Your task to perform on an android device: Open Google Chrome Image 0: 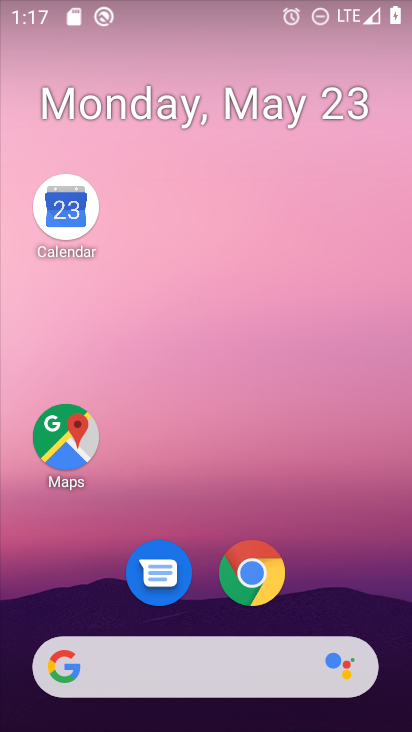
Step 0: click (249, 573)
Your task to perform on an android device: Open Google Chrome Image 1: 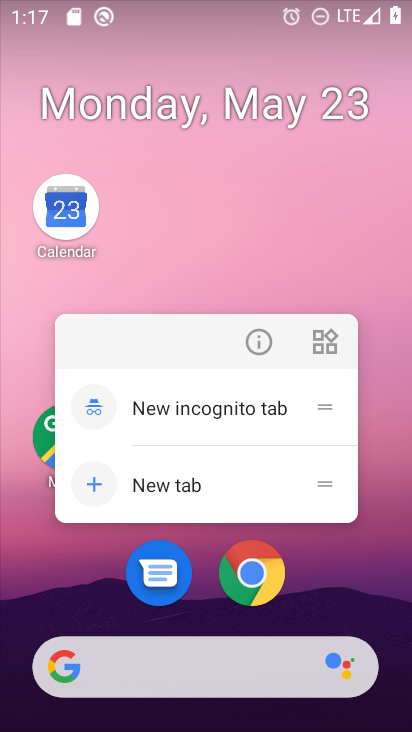
Step 1: click (251, 574)
Your task to perform on an android device: Open Google Chrome Image 2: 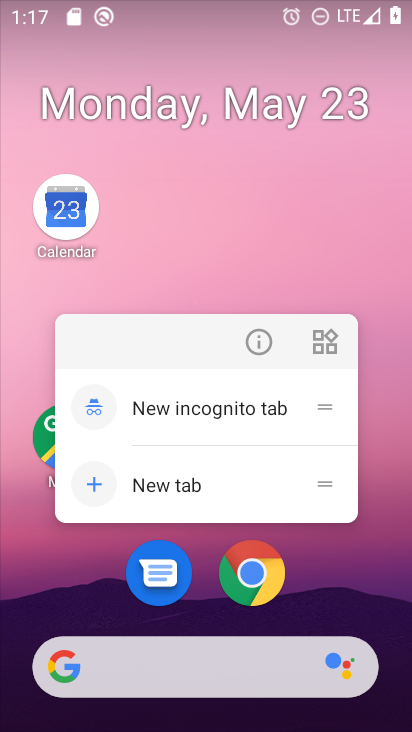
Step 2: click (251, 574)
Your task to perform on an android device: Open Google Chrome Image 3: 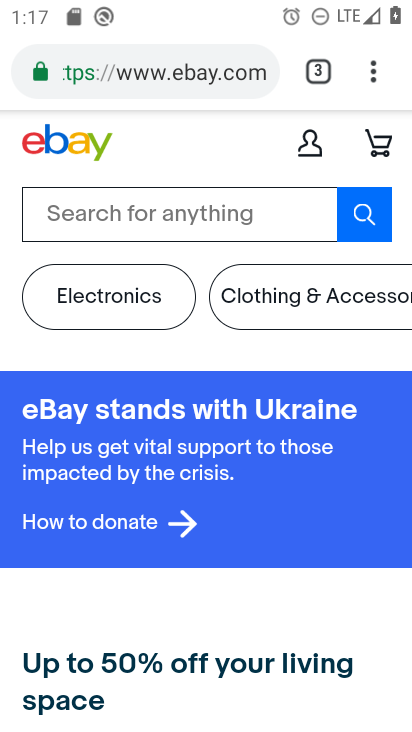
Step 3: click (371, 76)
Your task to perform on an android device: Open Google Chrome Image 4: 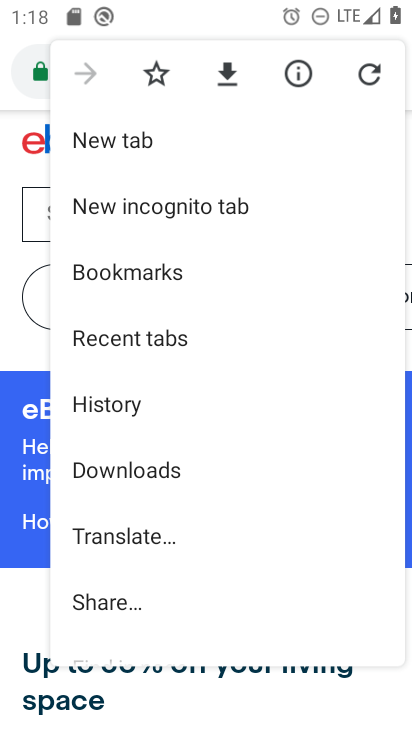
Step 4: task complete